Your task to perform on an android device: open device folders in google photos Image 0: 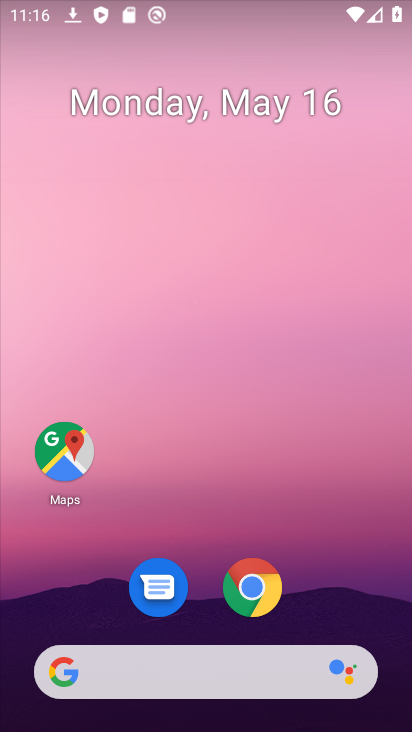
Step 0: drag from (388, 676) to (243, 108)
Your task to perform on an android device: open device folders in google photos Image 1: 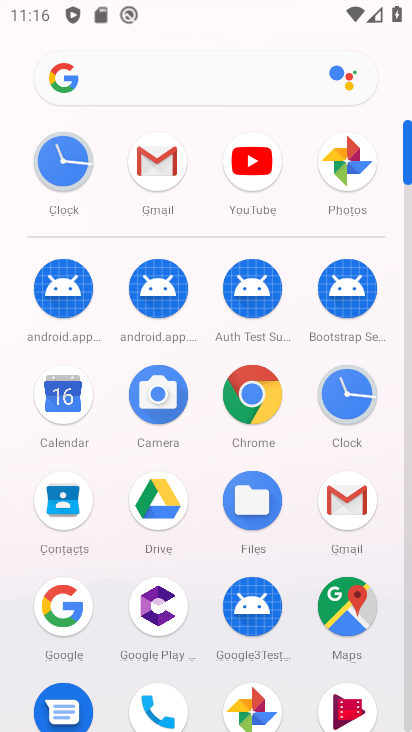
Step 1: click (242, 706)
Your task to perform on an android device: open device folders in google photos Image 2: 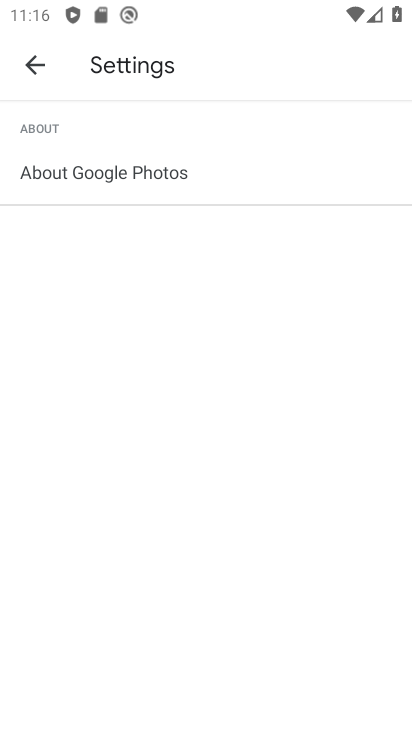
Step 2: press back button
Your task to perform on an android device: open device folders in google photos Image 3: 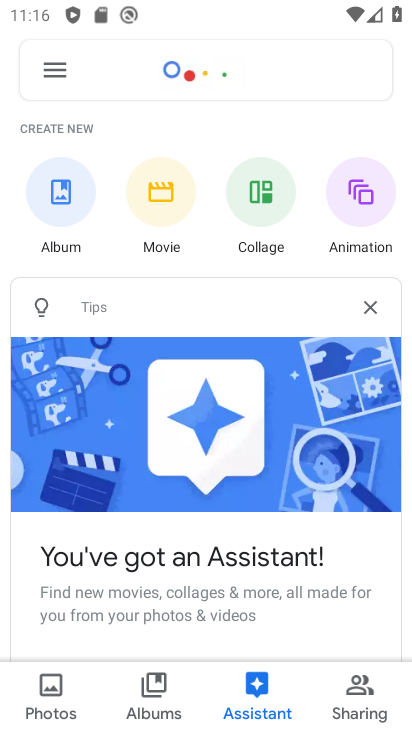
Step 3: click (35, 63)
Your task to perform on an android device: open device folders in google photos Image 4: 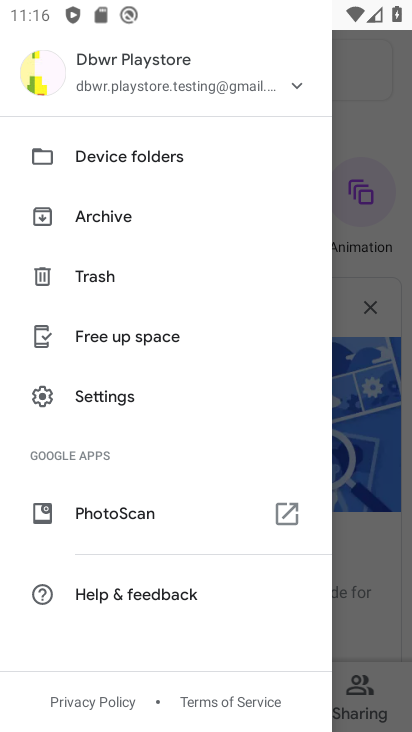
Step 4: click (124, 156)
Your task to perform on an android device: open device folders in google photos Image 5: 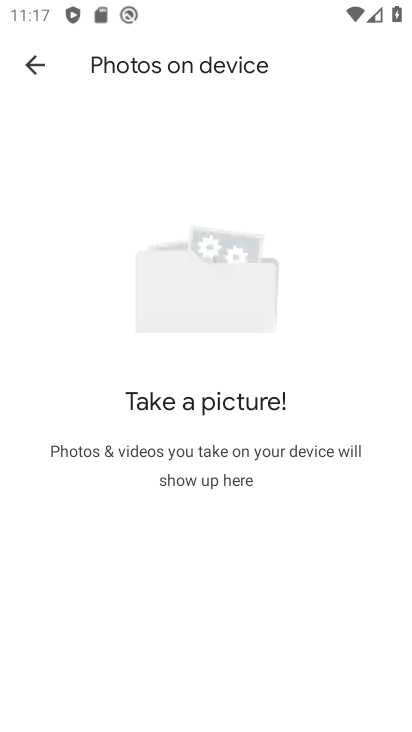
Step 5: task complete